Your task to perform on an android device: toggle notification dots Image 0: 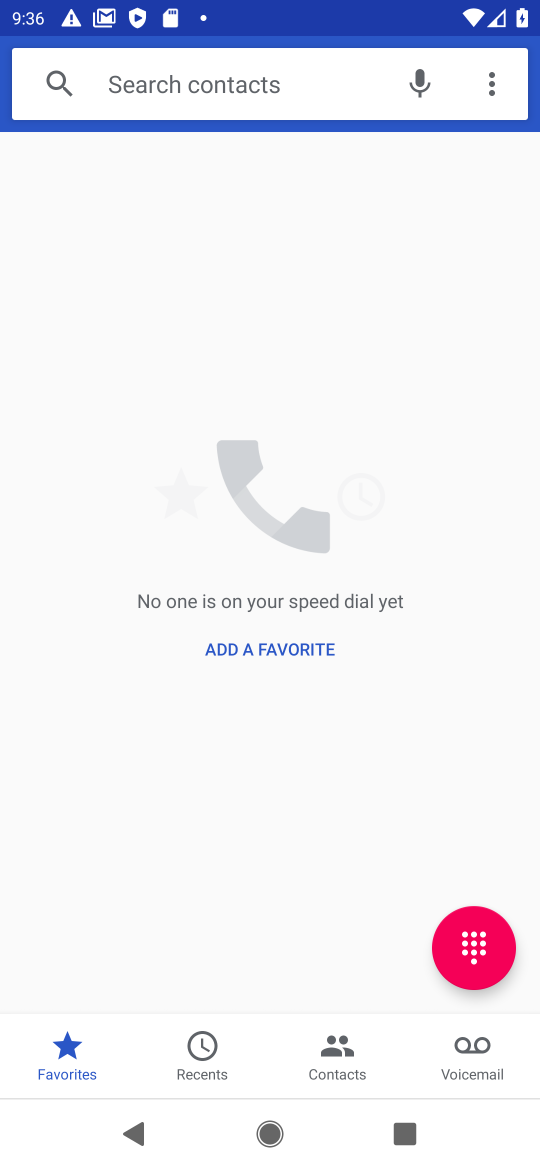
Step 0: press home button
Your task to perform on an android device: toggle notification dots Image 1: 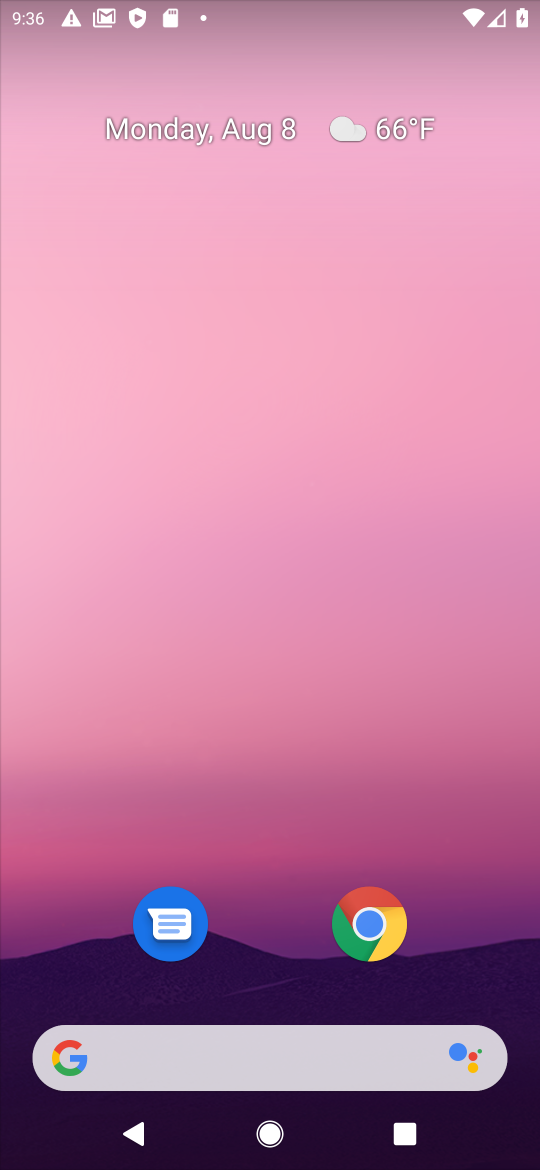
Step 1: drag from (307, 971) to (311, 94)
Your task to perform on an android device: toggle notification dots Image 2: 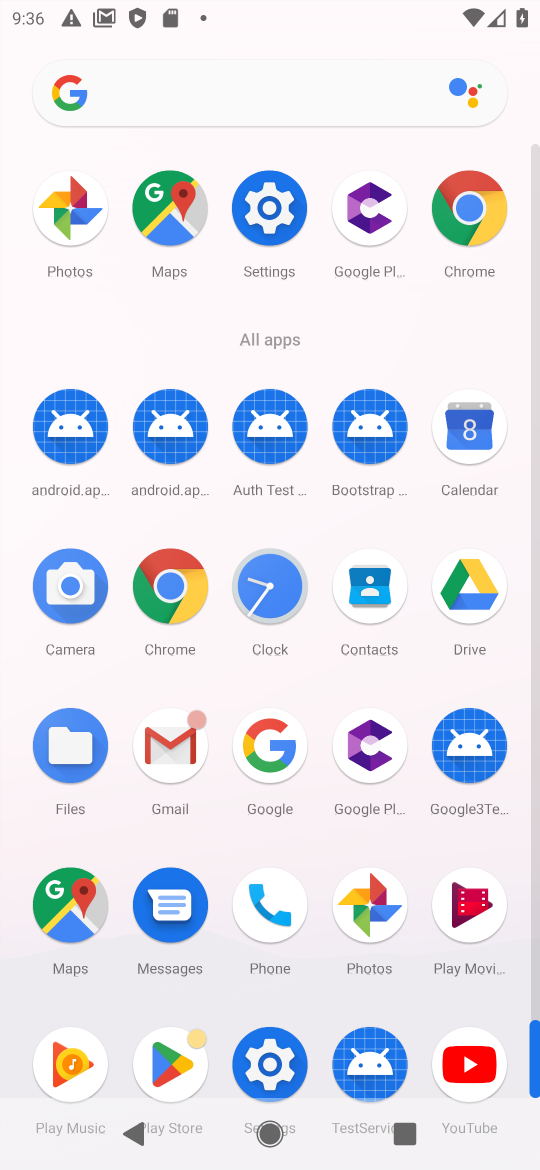
Step 2: click (260, 1058)
Your task to perform on an android device: toggle notification dots Image 3: 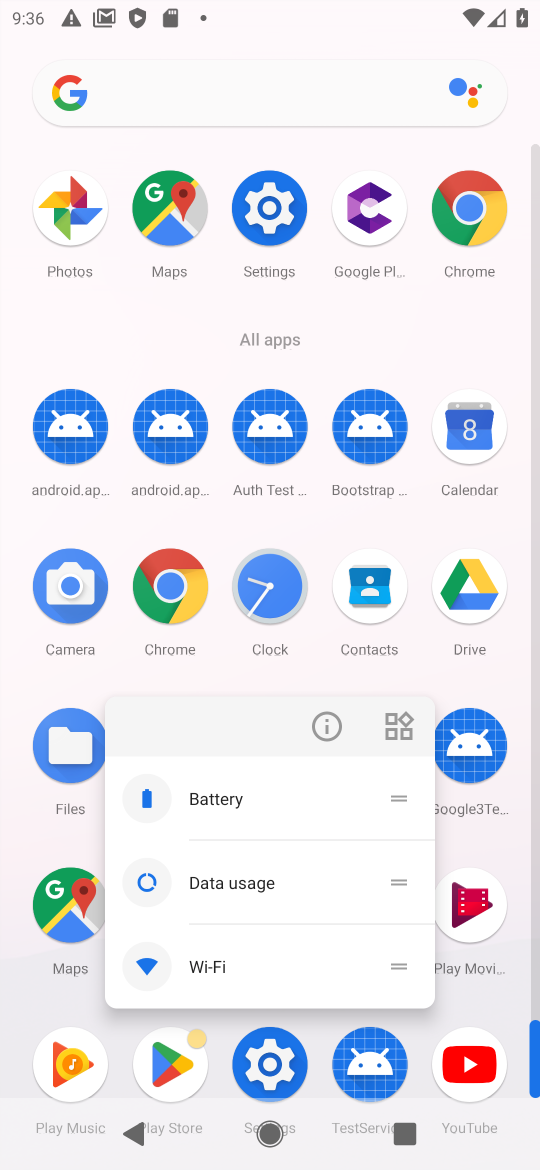
Step 3: click (259, 1064)
Your task to perform on an android device: toggle notification dots Image 4: 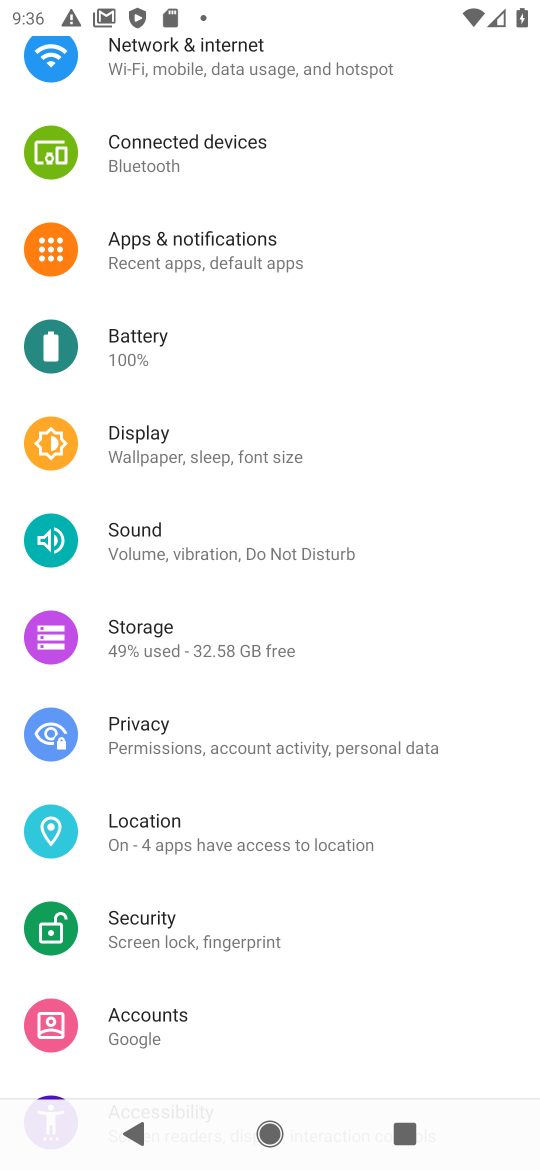
Step 4: click (225, 242)
Your task to perform on an android device: toggle notification dots Image 5: 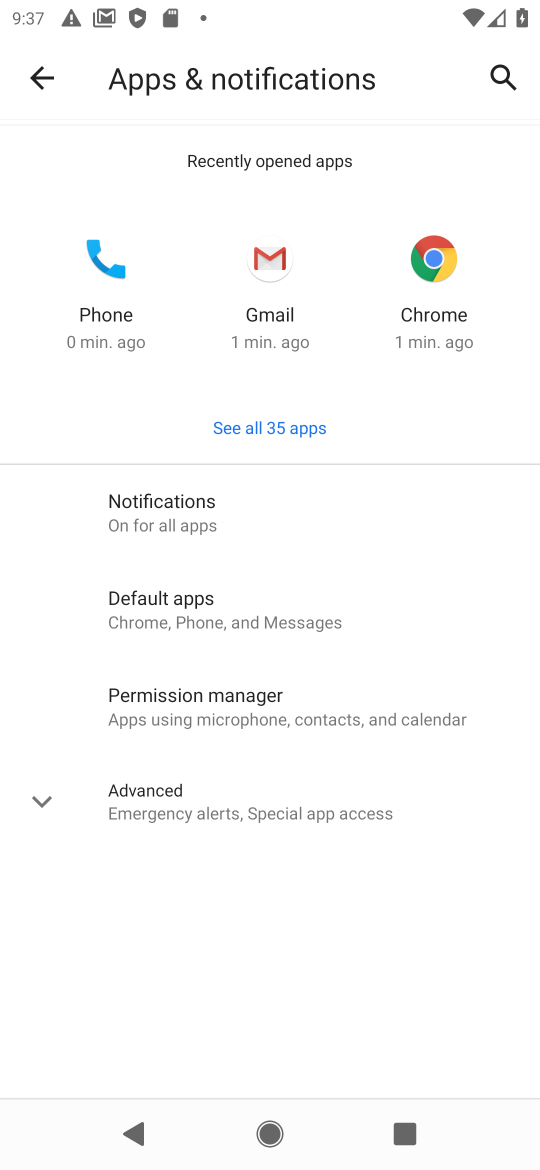
Step 5: click (202, 509)
Your task to perform on an android device: toggle notification dots Image 6: 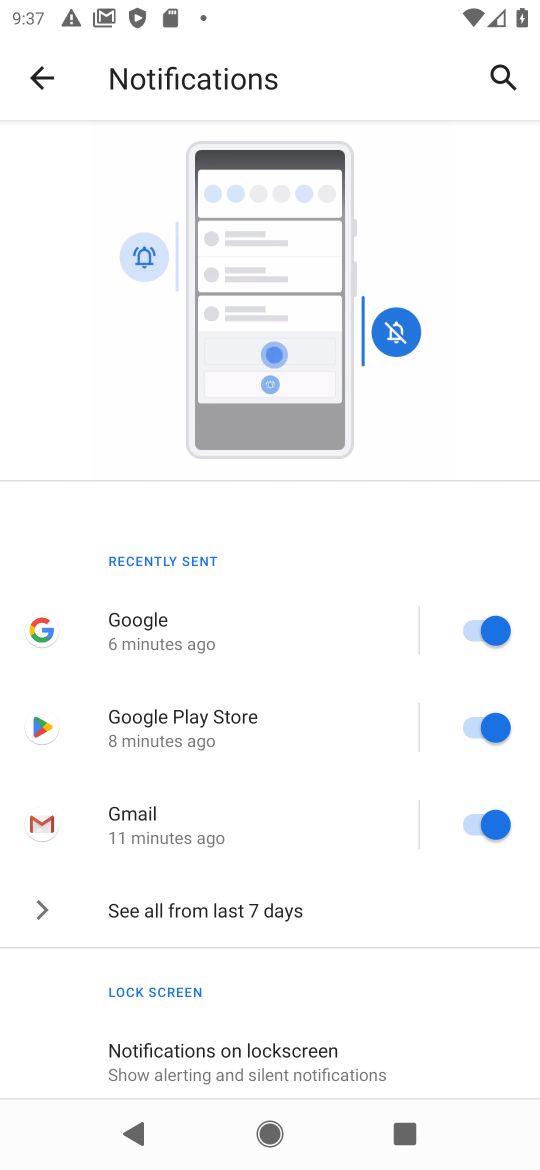
Step 6: drag from (341, 998) to (302, 346)
Your task to perform on an android device: toggle notification dots Image 7: 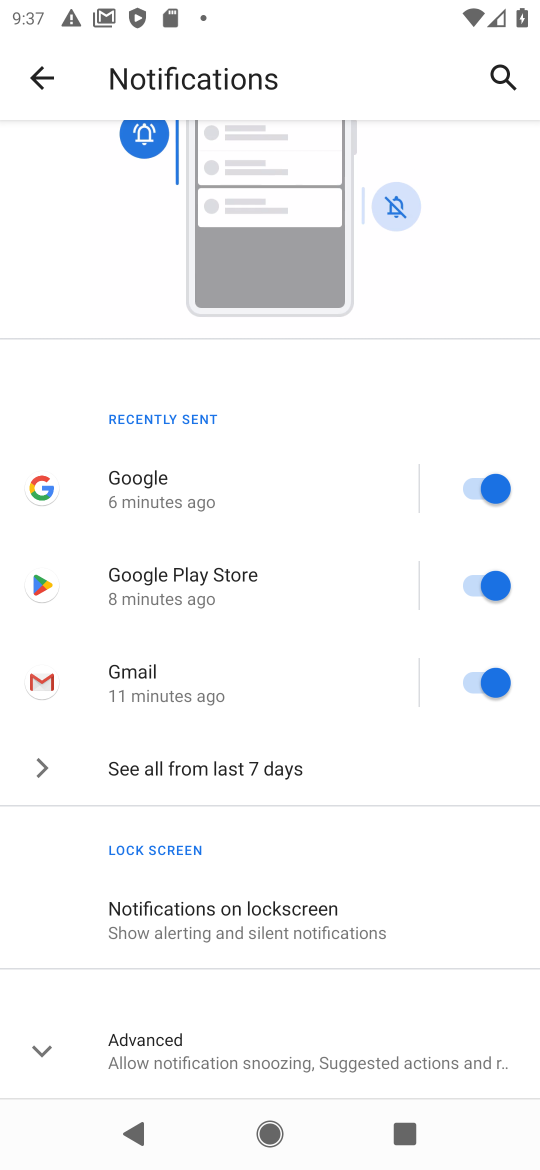
Step 7: click (246, 1050)
Your task to perform on an android device: toggle notification dots Image 8: 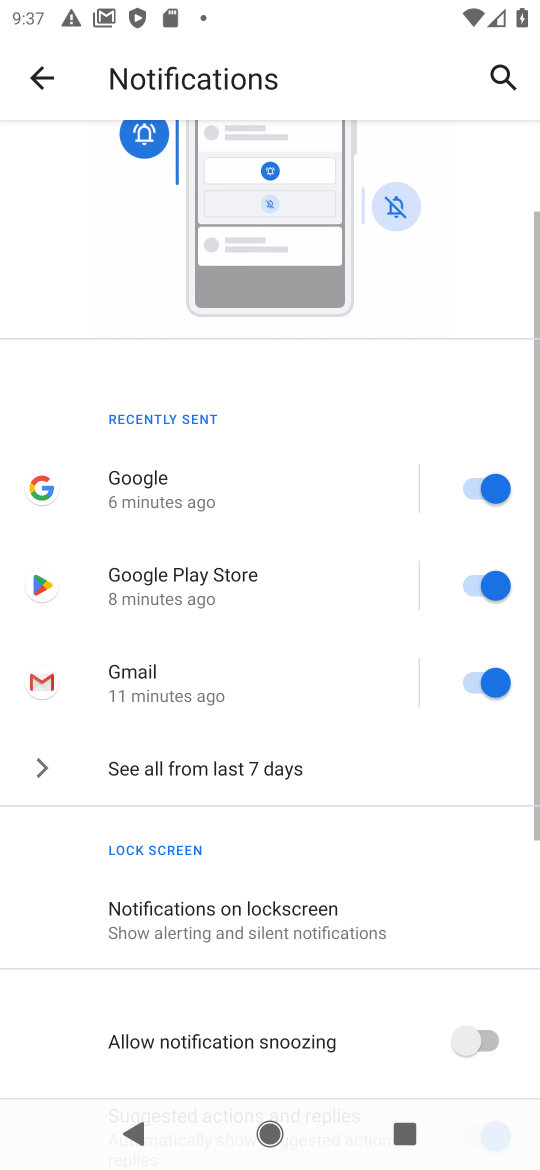
Step 8: drag from (258, 985) to (321, 440)
Your task to perform on an android device: toggle notification dots Image 9: 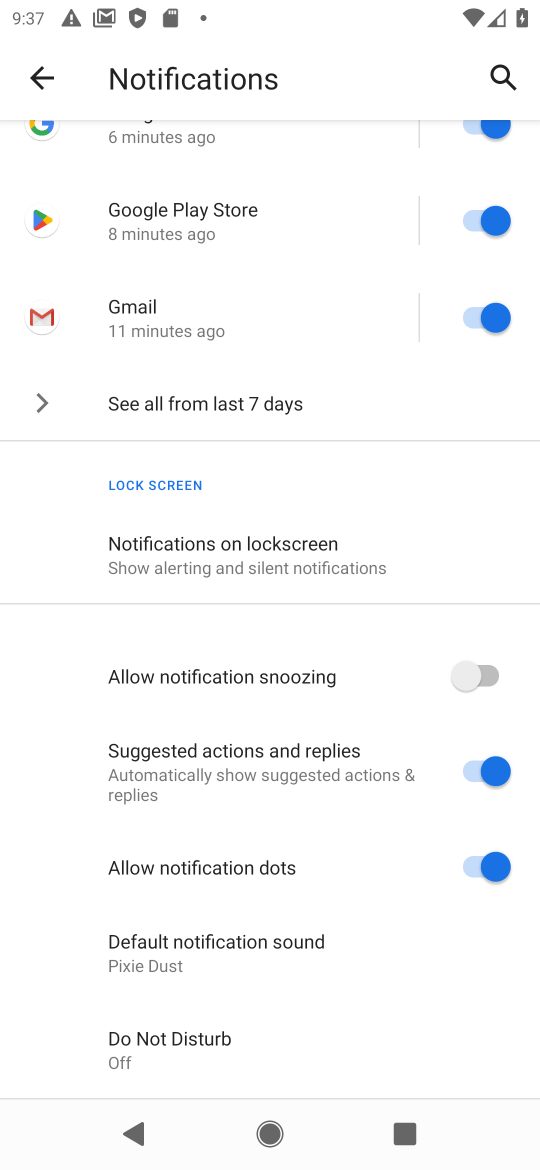
Step 9: click (392, 867)
Your task to perform on an android device: toggle notification dots Image 10: 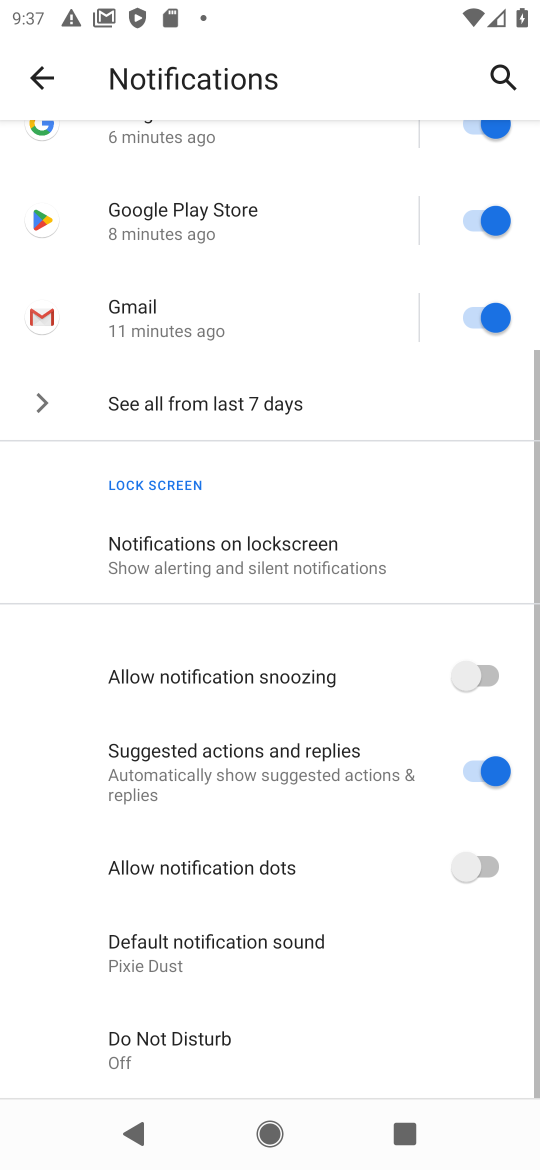
Step 10: task complete